Your task to perform on an android device: Open Google Image 0: 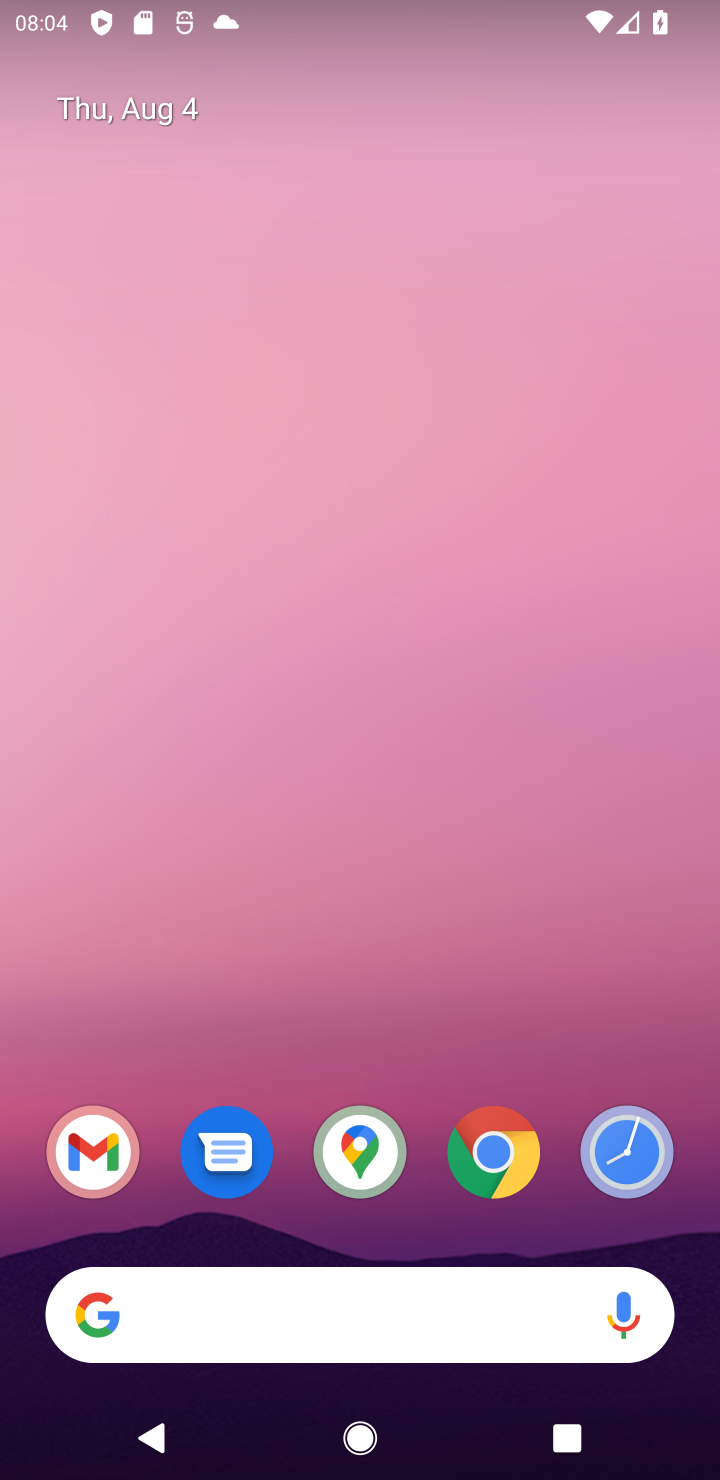
Step 0: click (88, 1319)
Your task to perform on an android device: Open Google Image 1: 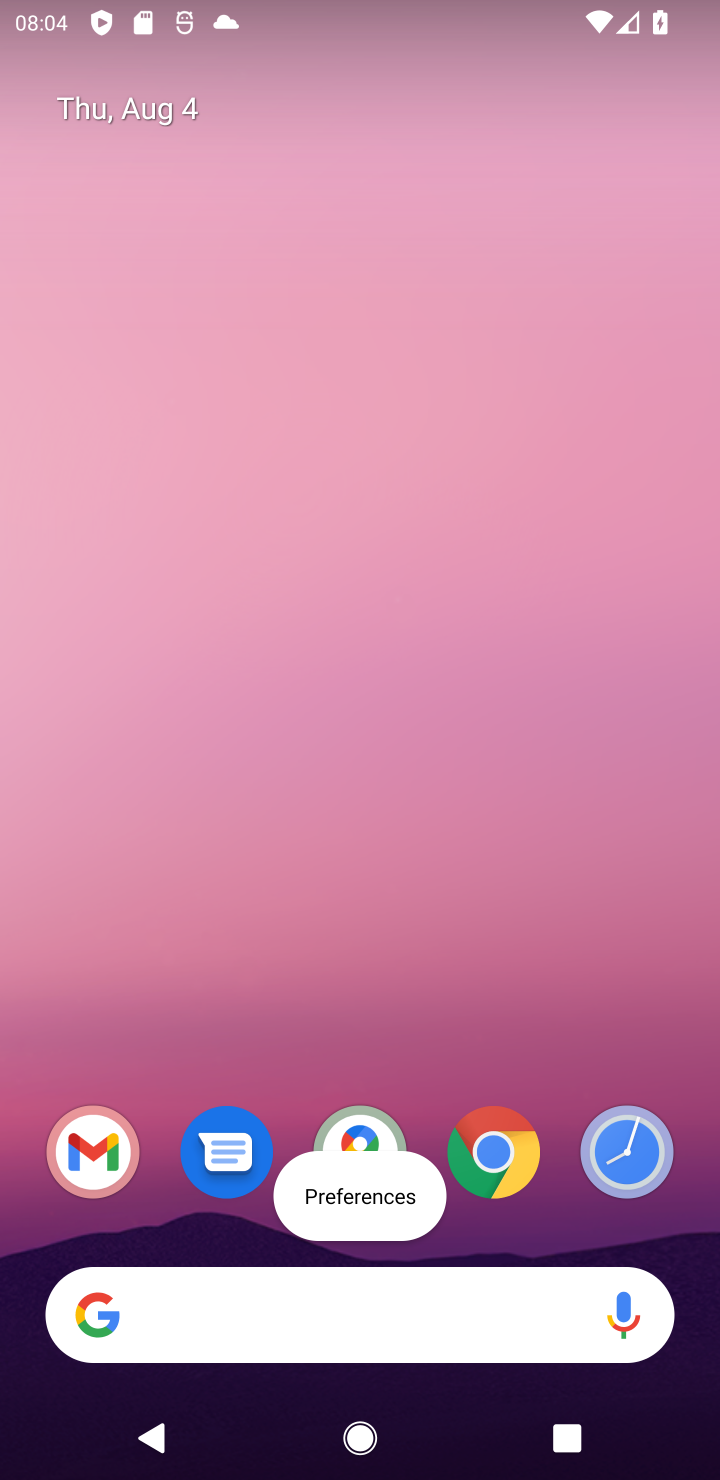
Step 1: click (80, 1295)
Your task to perform on an android device: Open Google Image 2: 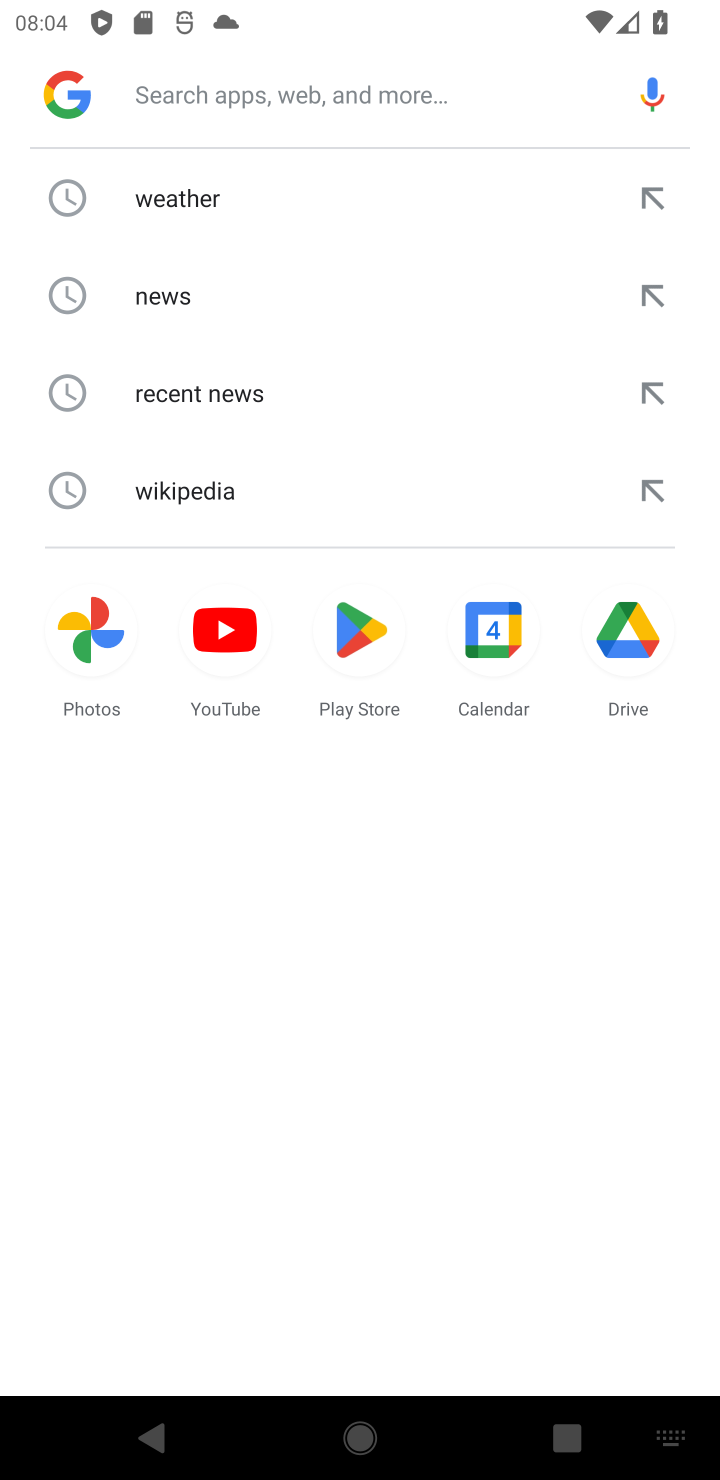
Step 2: click (53, 98)
Your task to perform on an android device: Open Google Image 3: 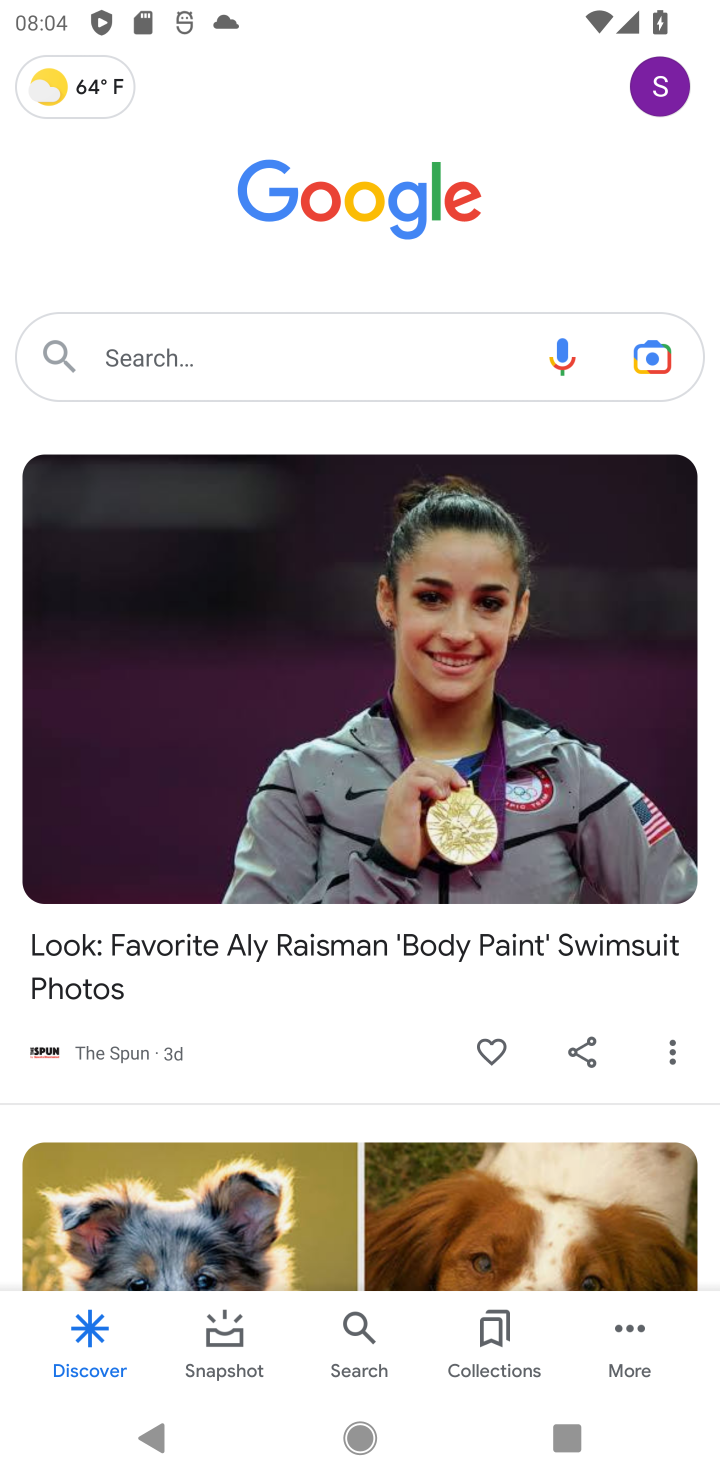
Step 3: task complete